Your task to perform on an android device: see sites visited before in the chrome app Image 0: 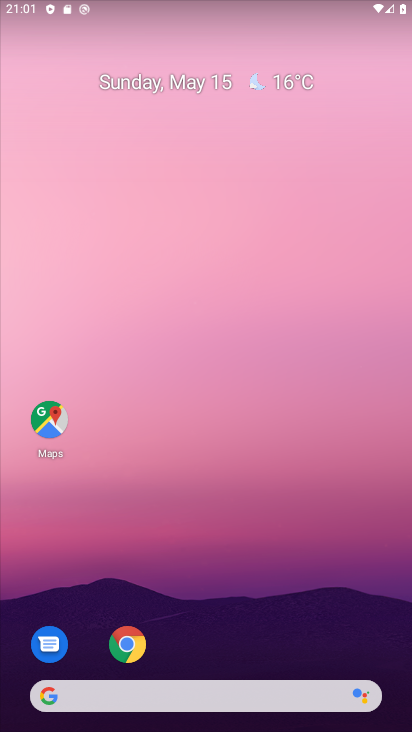
Step 0: click (131, 647)
Your task to perform on an android device: see sites visited before in the chrome app Image 1: 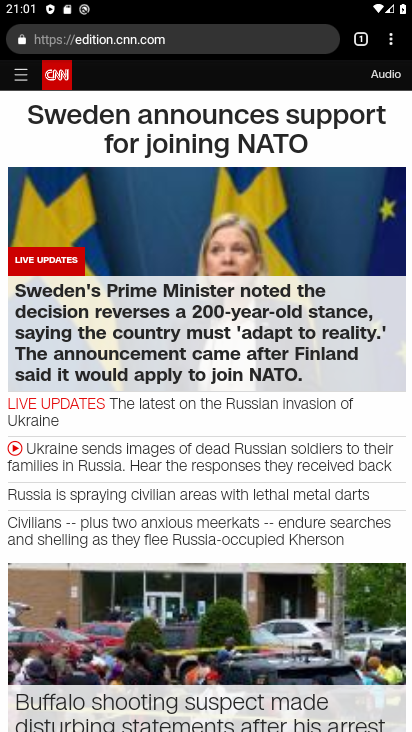
Step 1: task complete